Your task to perform on an android device: Open internet settings Image 0: 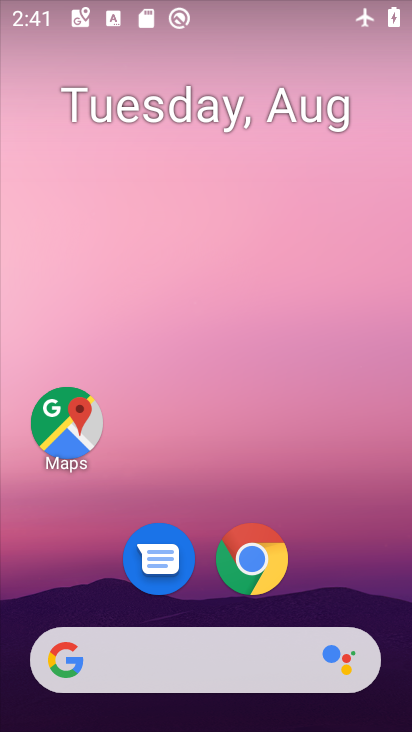
Step 0: drag from (201, 489) to (194, 118)
Your task to perform on an android device: Open internet settings Image 1: 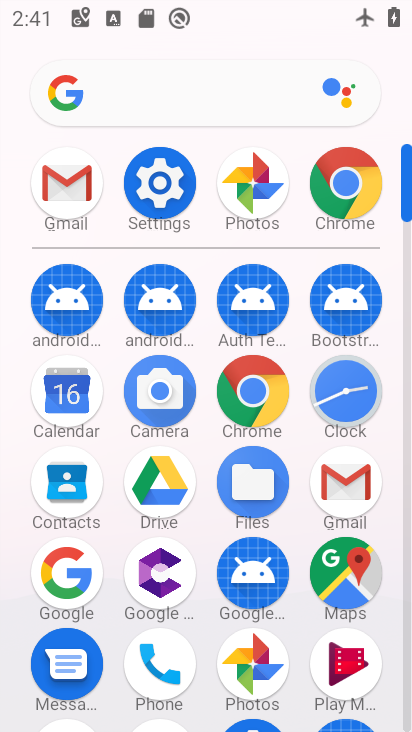
Step 1: click (165, 191)
Your task to perform on an android device: Open internet settings Image 2: 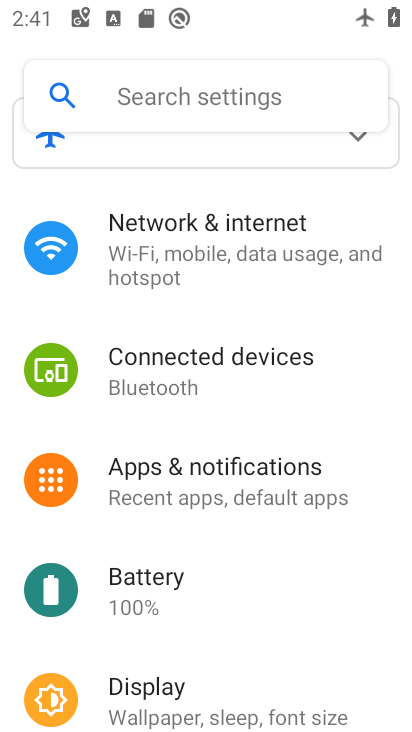
Step 2: click (186, 230)
Your task to perform on an android device: Open internet settings Image 3: 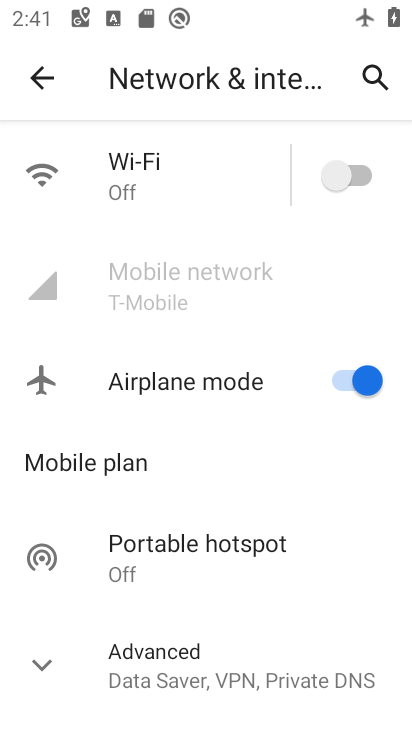
Step 3: task complete